Your task to perform on an android device: delete browsing data in the chrome app Image 0: 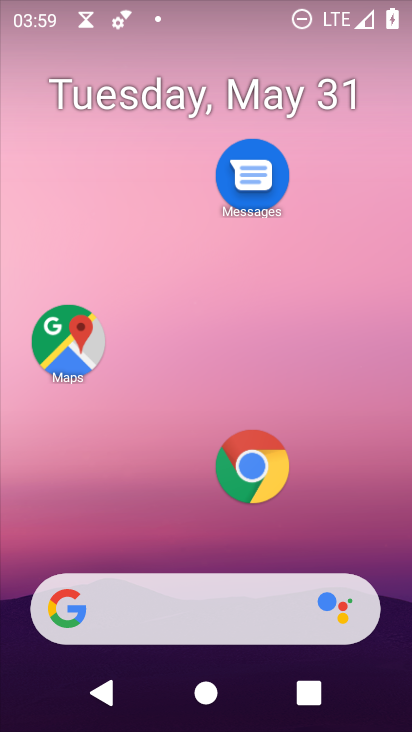
Step 0: click (253, 483)
Your task to perform on an android device: delete browsing data in the chrome app Image 1: 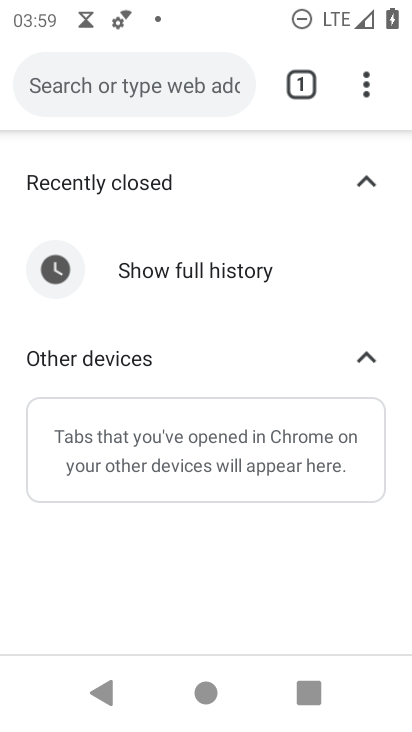
Step 1: task complete